Your task to perform on an android device: star an email in the gmail app Image 0: 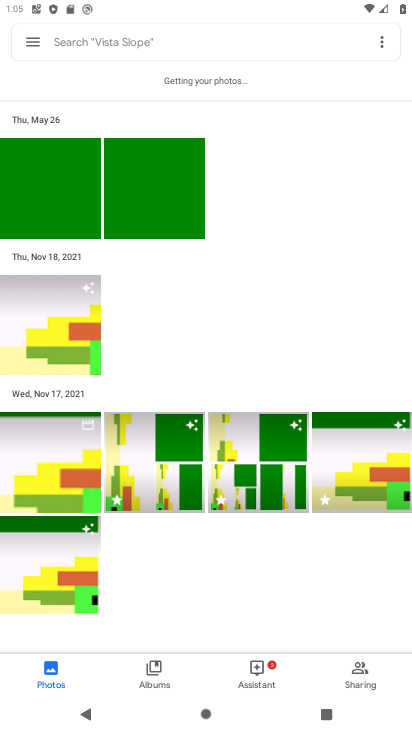
Step 0: press home button
Your task to perform on an android device: star an email in the gmail app Image 1: 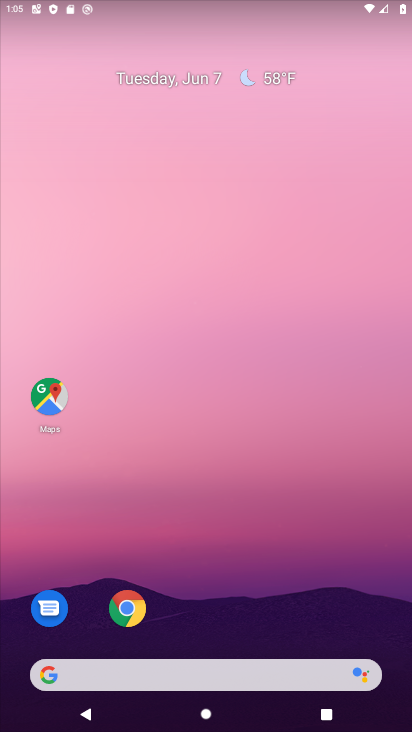
Step 1: drag from (292, 588) to (252, 123)
Your task to perform on an android device: star an email in the gmail app Image 2: 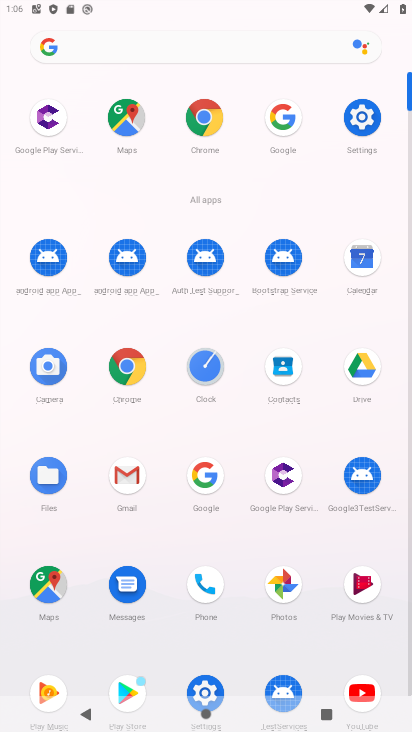
Step 2: click (113, 464)
Your task to perform on an android device: star an email in the gmail app Image 3: 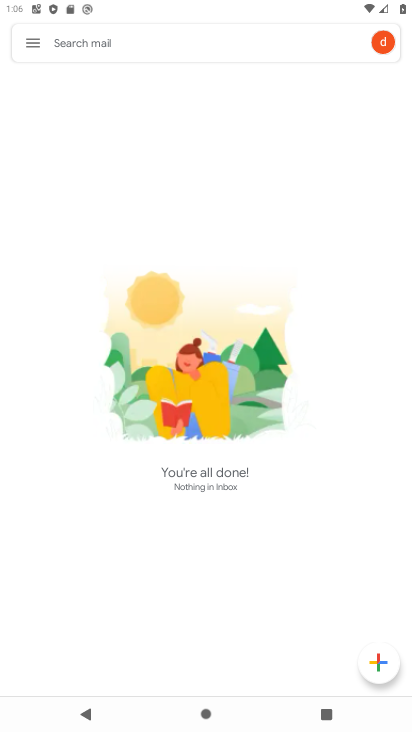
Step 3: click (42, 47)
Your task to perform on an android device: star an email in the gmail app Image 4: 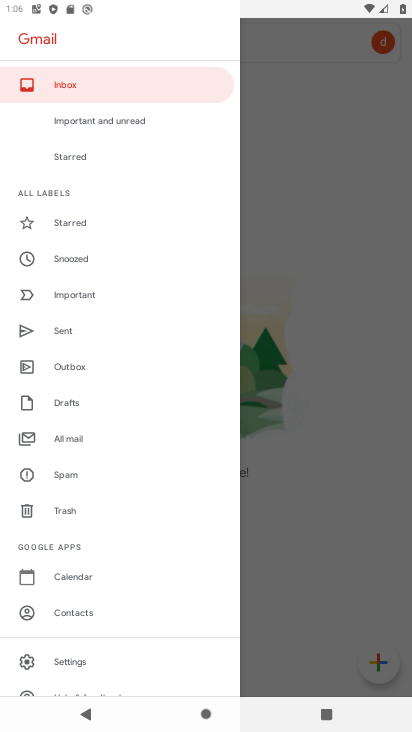
Step 4: click (64, 440)
Your task to perform on an android device: star an email in the gmail app Image 5: 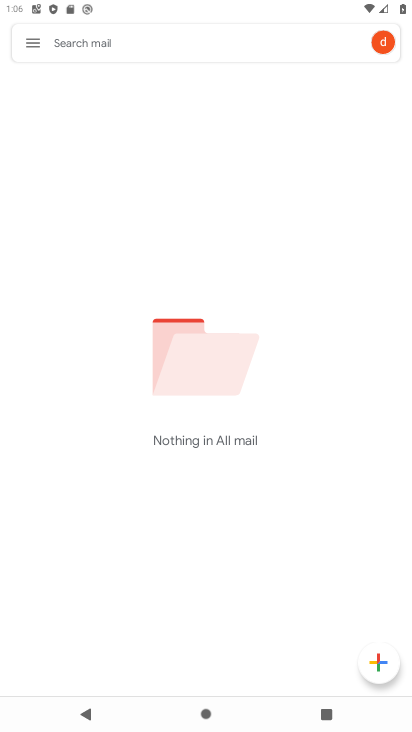
Step 5: task complete